Your task to perform on an android device: toggle javascript in the chrome app Image 0: 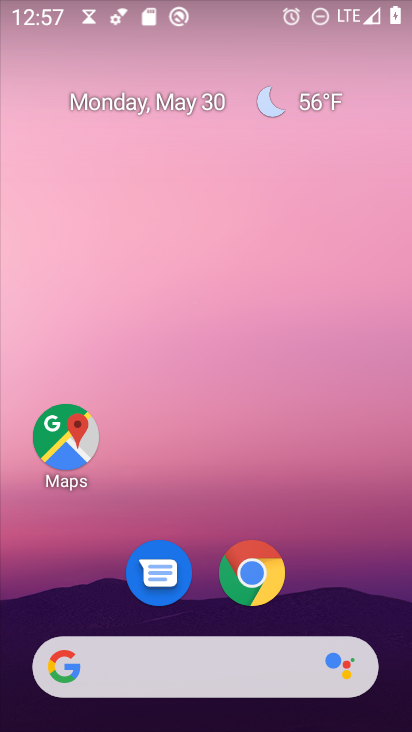
Step 0: drag from (278, 700) to (356, 23)
Your task to perform on an android device: toggle javascript in the chrome app Image 1: 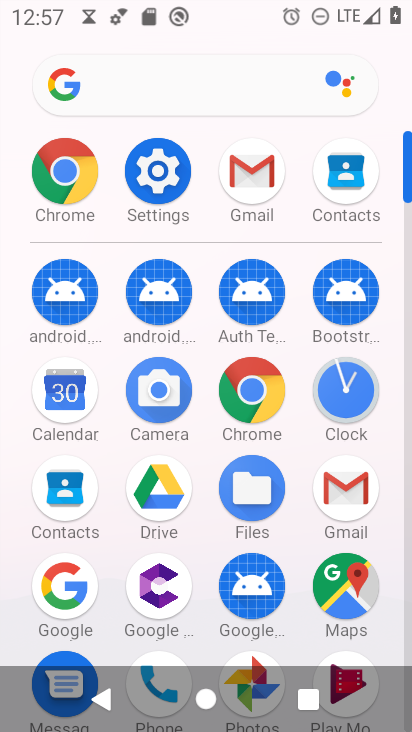
Step 1: click (244, 396)
Your task to perform on an android device: toggle javascript in the chrome app Image 2: 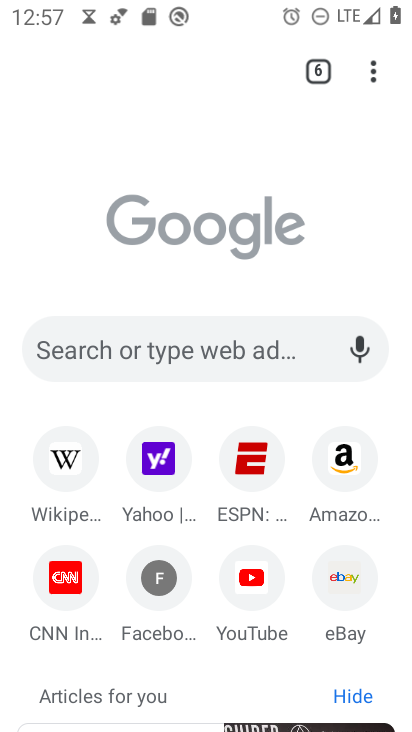
Step 2: drag from (368, 63) to (201, 590)
Your task to perform on an android device: toggle javascript in the chrome app Image 3: 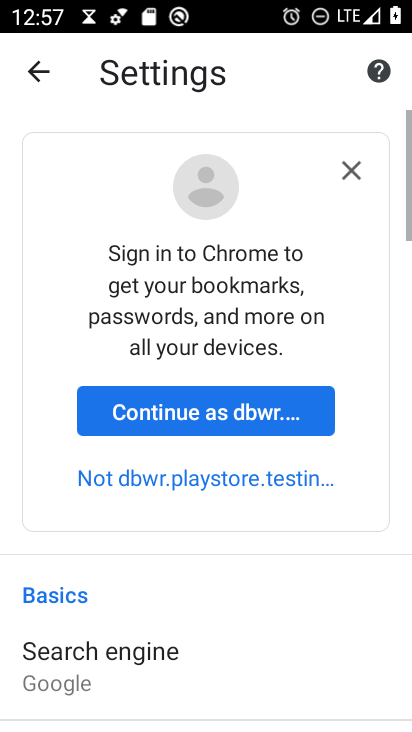
Step 3: drag from (208, 596) to (270, 22)
Your task to perform on an android device: toggle javascript in the chrome app Image 4: 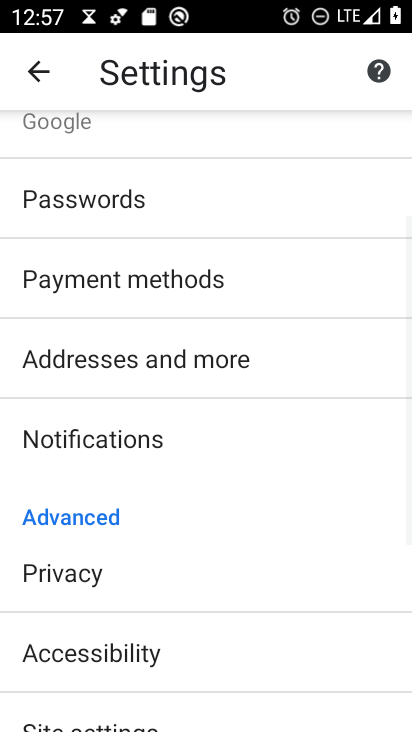
Step 4: drag from (219, 651) to (270, 342)
Your task to perform on an android device: toggle javascript in the chrome app Image 5: 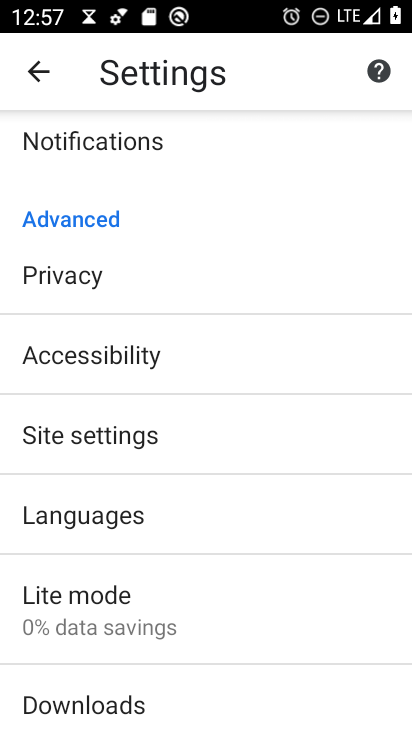
Step 5: click (213, 443)
Your task to perform on an android device: toggle javascript in the chrome app Image 6: 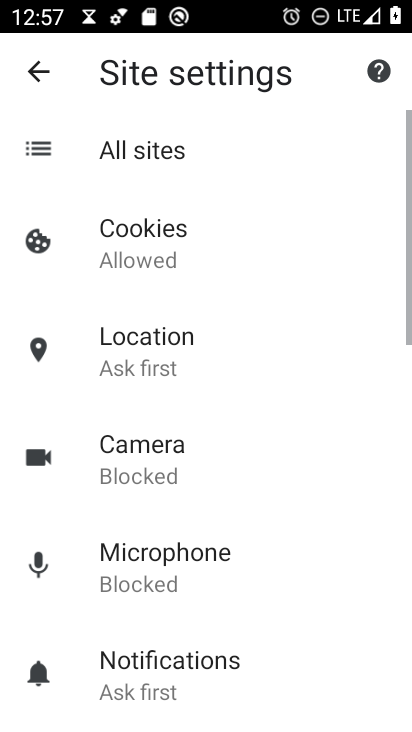
Step 6: drag from (221, 557) to (281, 60)
Your task to perform on an android device: toggle javascript in the chrome app Image 7: 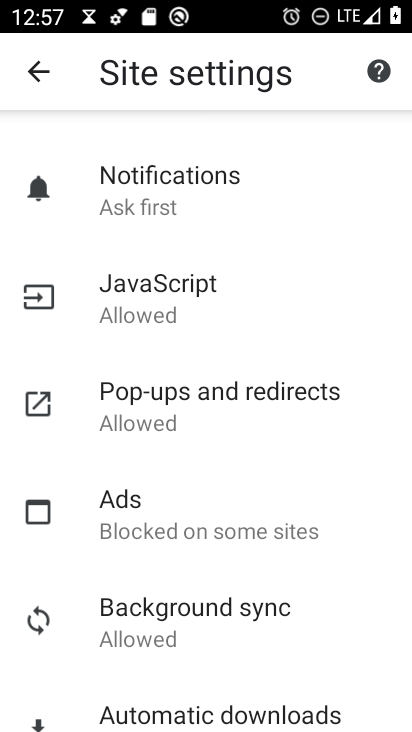
Step 7: click (205, 311)
Your task to perform on an android device: toggle javascript in the chrome app Image 8: 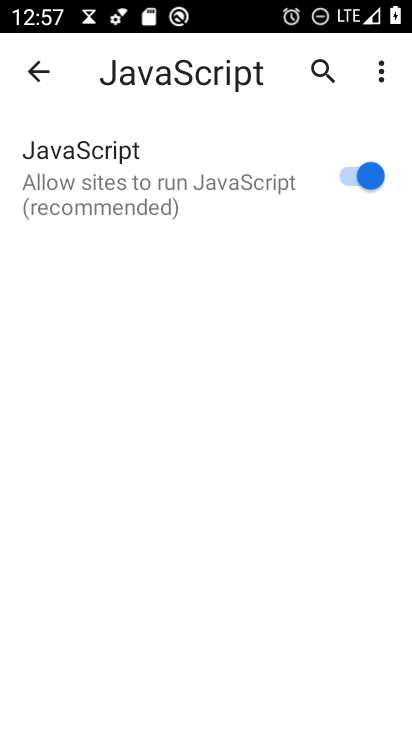
Step 8: task complete